Your task to perform on an android device: check data usage Image 0: 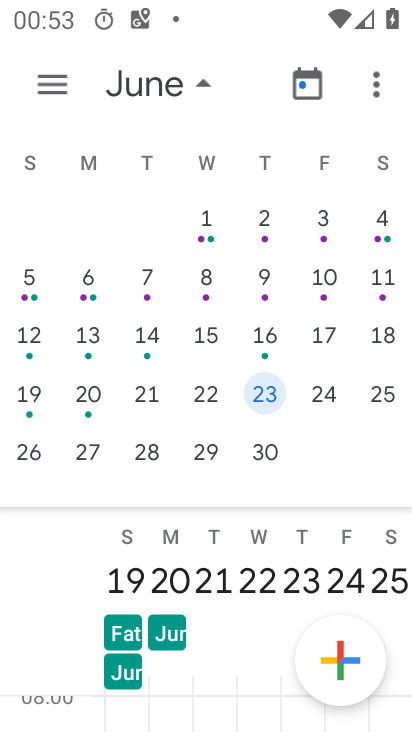
Step 0: press home button
Your task to perform on an android device: check data usage Image 1: 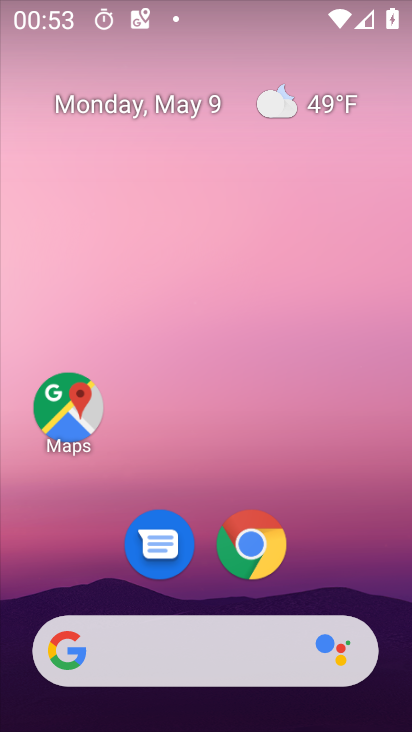
Step 1: drag from (293, 649) to (246, 0)
Your task to perform on an android device: check data usage Image 2: 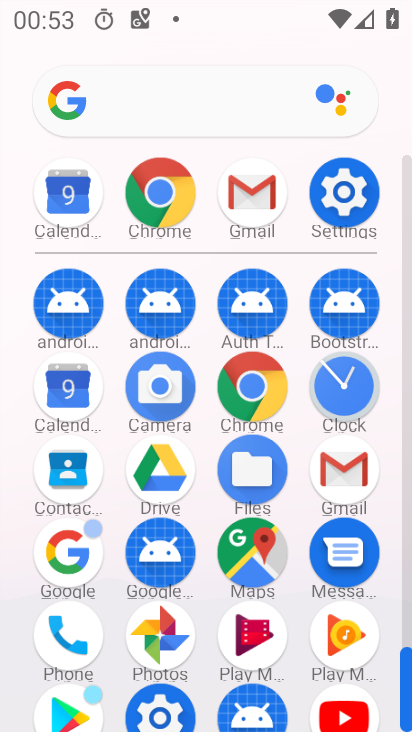
Step 2: click (346, 205)
Your task to perform on an android device: check data usage Image 3: 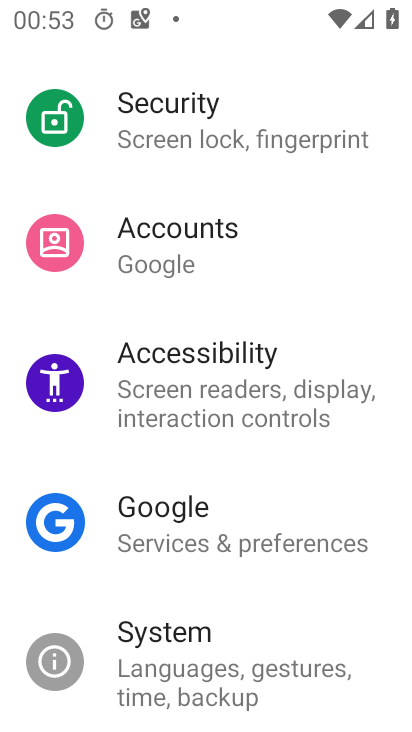
Step 3: drag from (252, 277) to (281, 731)
Your task to perform on an android device: check data usage Image 4: 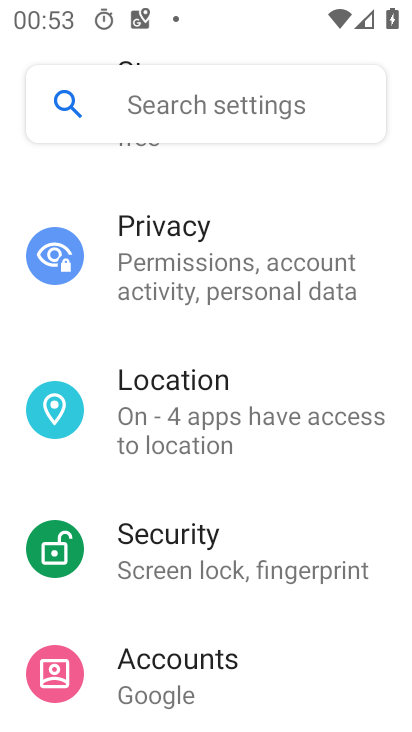
Step 4: drag from (259, 329) to (328, 713)
Your task to perform on an android device: check data usage Image 5: 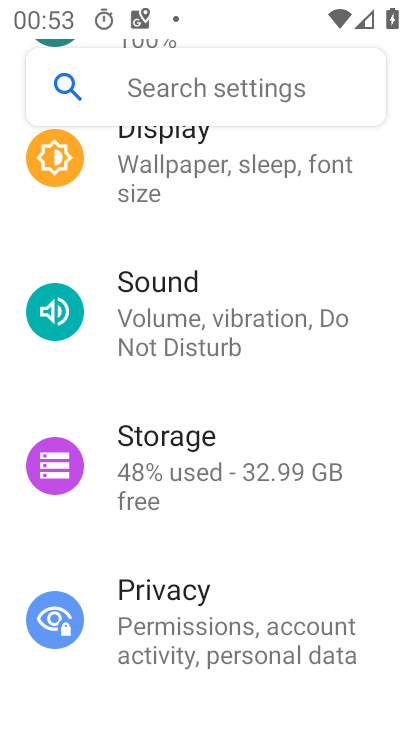
Step 5: drag from (276, 303) to (284, 727)
Your task to perform on an android device: check data usage Image 6: 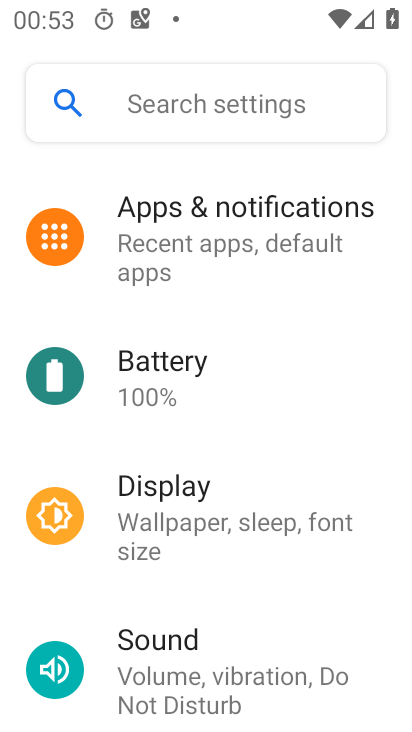
Step 6: drag from (263, 243) to (267, 729)
Your task to perform on an android device: check data usage Image 7: 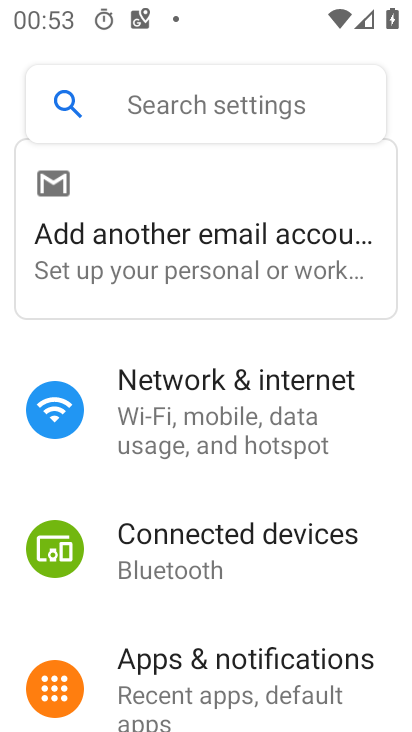
Step 7: click (271, 401)
Your task to perform on an android device: check data usage Image 8: 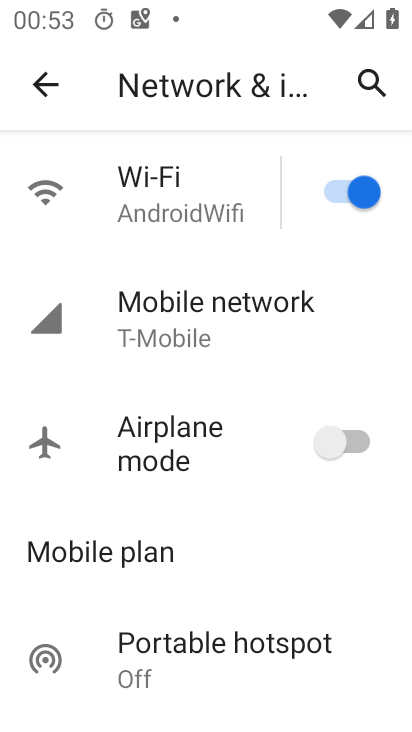
Step 8: task complete